Your task to perform on an android device: Open calendar and show me the first week of next month Image 0: 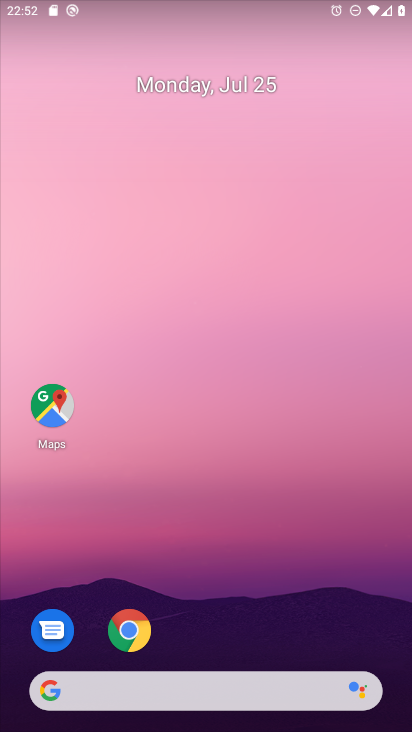
Step 0: drag from (263, 540) to (288, 69)
Your task to perform on an android device: Open calendar and show me the first week of next month Image 1: 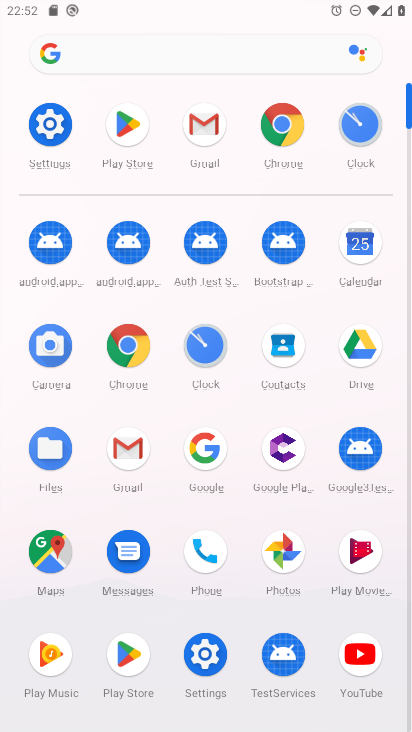
Step 1: click (355, 248)
Your task to perform on an android device: Open calendar and show me the first week of next month Image 2: 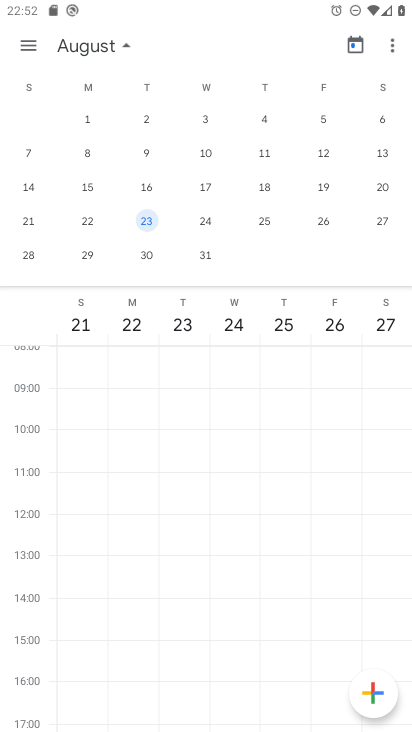
Step 2: click (147, 124)
Your task to perform on an android device: Open calendar and show me the first week of next month Image 3: 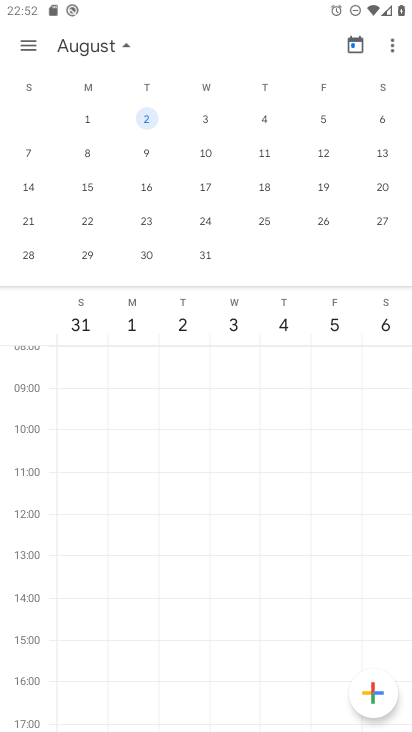
Step 3: task complete